Your task to perform on an android device: Do I have any events this weekend? Image 0: 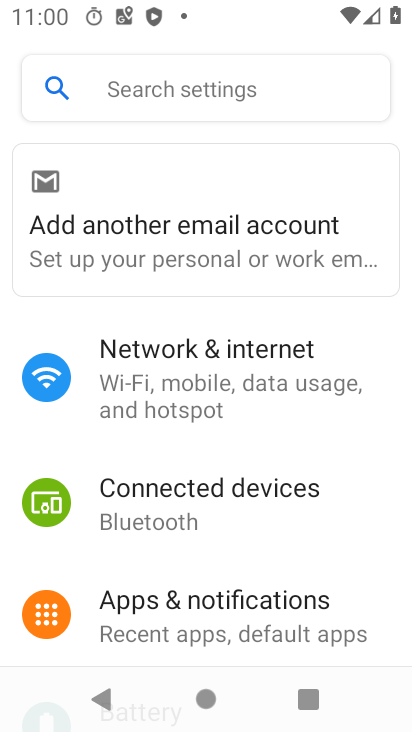
Step 0: press home button
Your task to perform on an android device: Do I have any events this weekend? Image 1: 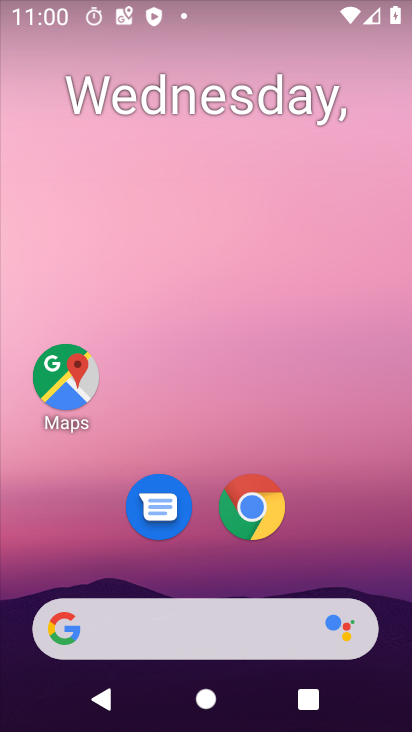
Step 1: drag from (222, 726) to (221, 104)
Your task to perform on an android device: Do I have any events this weekend? Image 2: 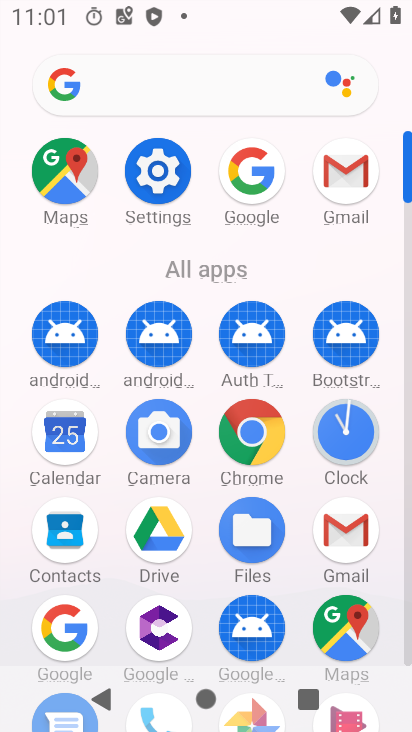
Step 2: click (64, 428)
Your task to perform on an android device: Do I have any events this weekend? Image 3: 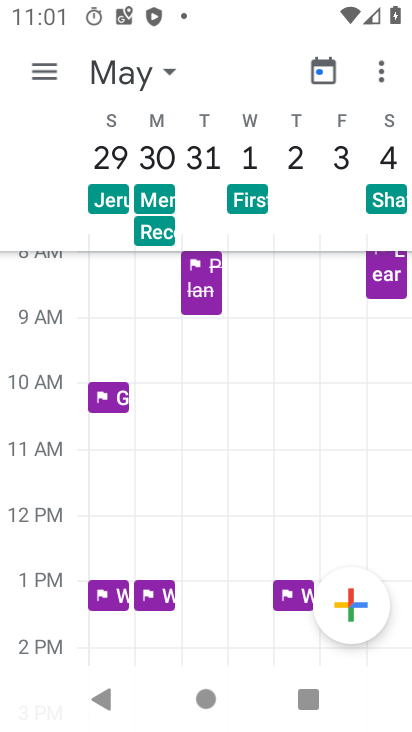
Step 3: click (176, 74)
Your task to perform on an android device: Do I have any events this weekend? Image 4: 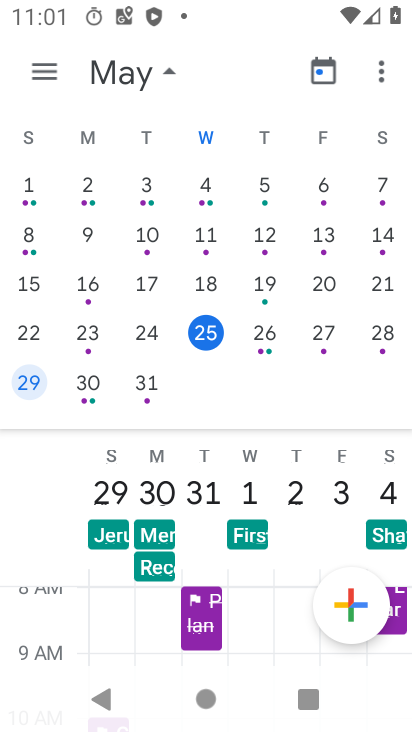
Step 4: click (380, 332)
Your task to perform on an android device: Do I have any events this weekend? Image 5: 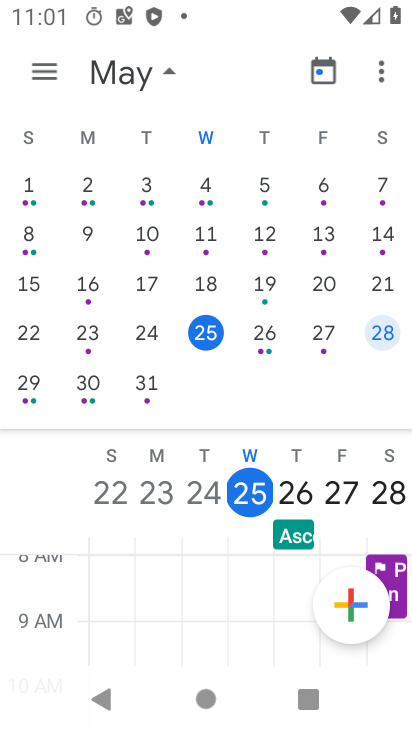
Step 5: click (389, 335)
Your task to perform on an android device: Do I have any events this weekend? Image 6: 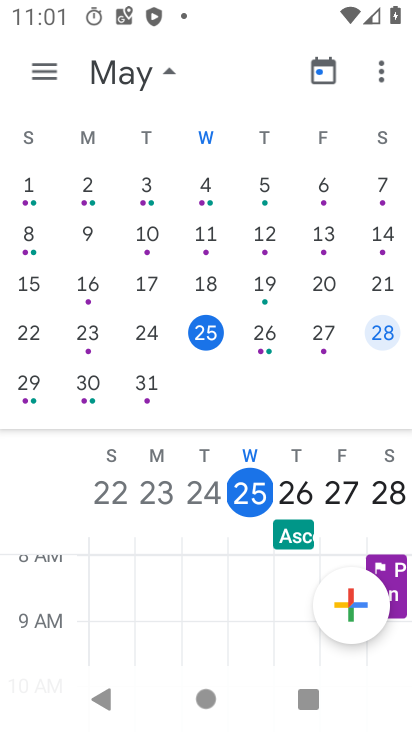
Step 6: click (253, 490)
Your task to perform on an android device: Do I have any events this weekend? Image 7: 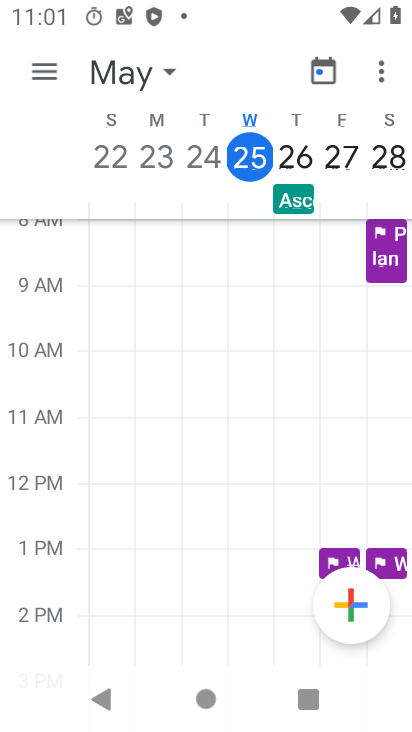
Step 7: click (385, 148)
Your task to perform on an android device: Do I have any events this weekend? Image 8: 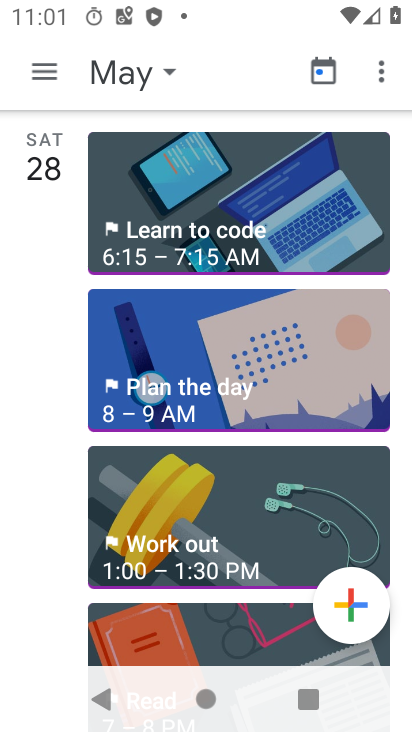
Step 8: task complete